Your task to perform on an android device: See recent photos Image 0: 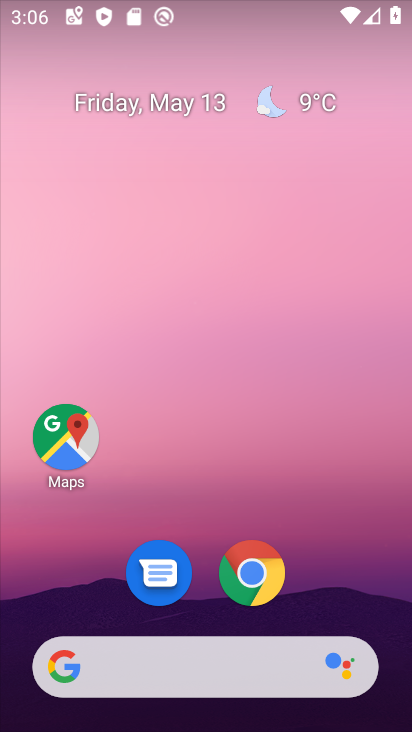
Step 0: drag from (203, 634) to (317, 106)
Your task to perform on an android device: See recent photos Image 1: 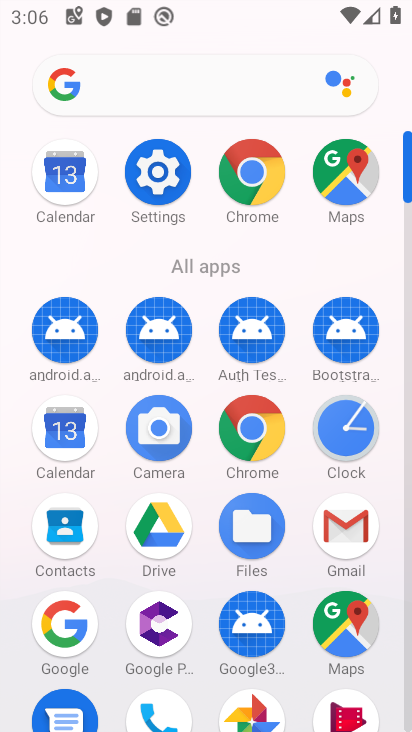
Step 1: click (247, 712)
Your task to perform on an android device: See recent photos Image 2: 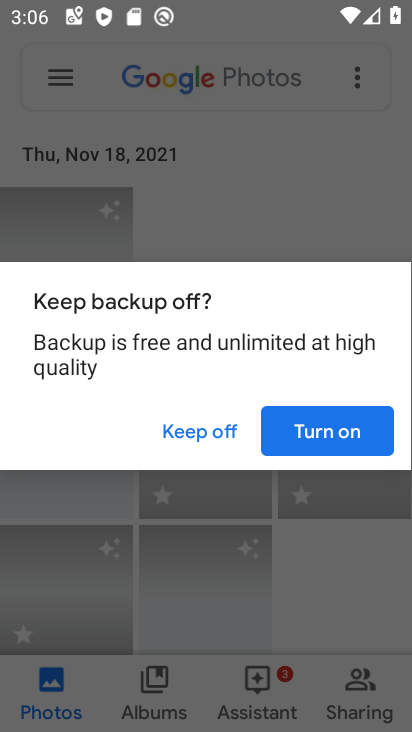
Step 2: click (192, 439)
Your task to perform on an android device: See recent photos Image 3: 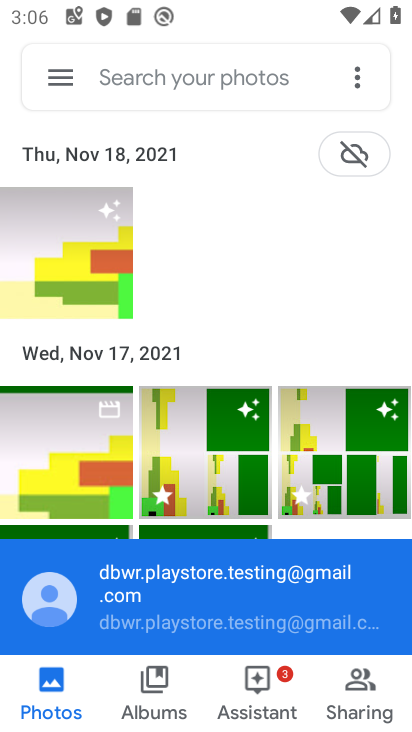
Step 3: click (47, 711)
Your task to perform on an android device: See recent photos Image 4: 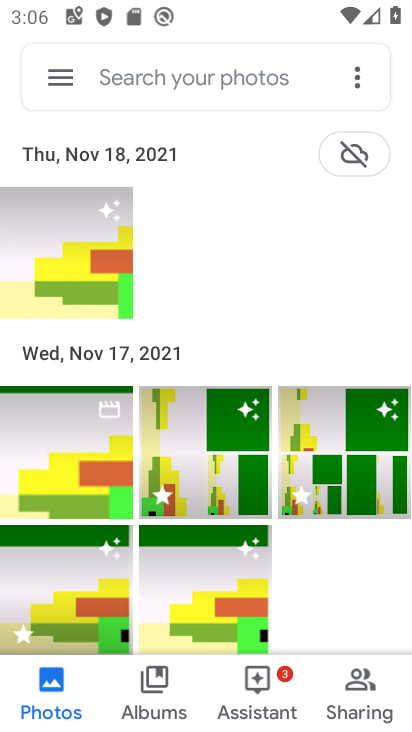
Step 4: task complete